Your task to perform on an android device: Go to Amazon Image 0: 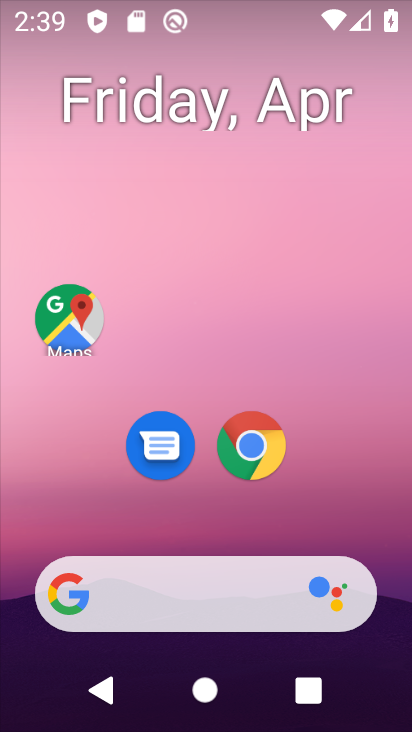
Step 0: click (256, 448)
Your task to perform on an android device: Go to Amazon Image 1: 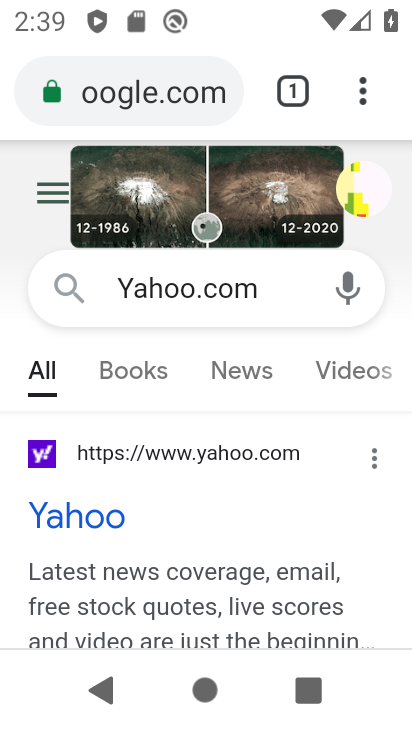
Step 1: click (228, 100)
Your task to perform on an android device: Go to Amazon Image 2: 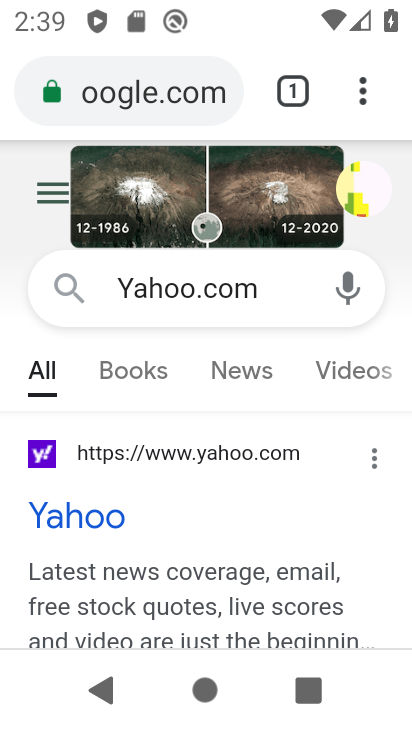
Step 2: click (213, 90)
Your task to perform on an android device: Go to Amazon Image 3: 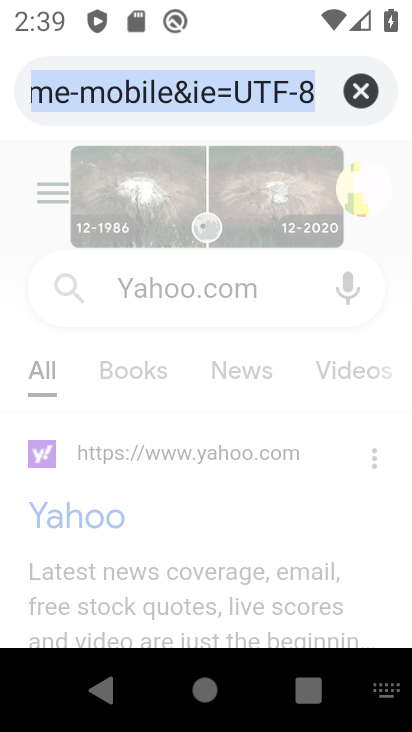
Step 3: click (359, 89)
Your task to perform on an android device: Go to Amazon Image 4: 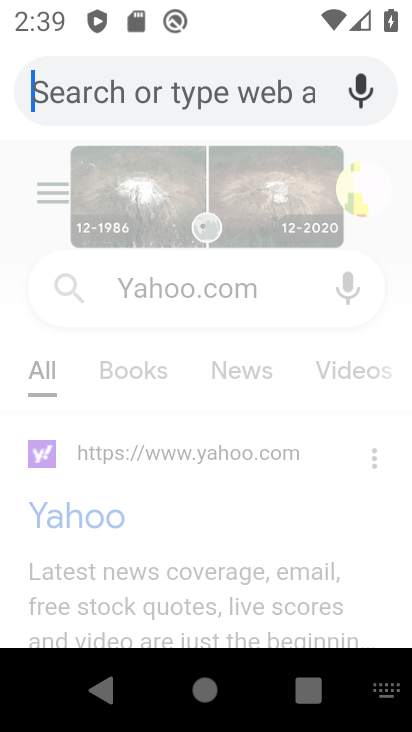
Step 4: type "Amazon"
Your task to perform on an android device: Go to Amazon Image 5: 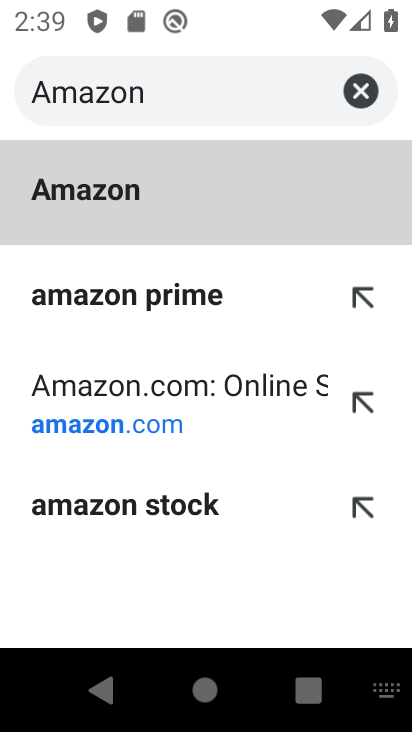
Step 5: click (107, 211)
Your task to perform on an android device: Go to Amazon Image 6: 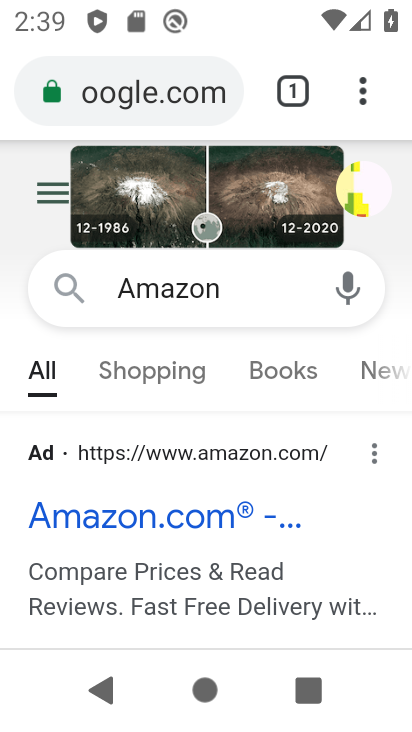
Step 6: task complete